Your task to perform on an android device: set the timer Image 0: 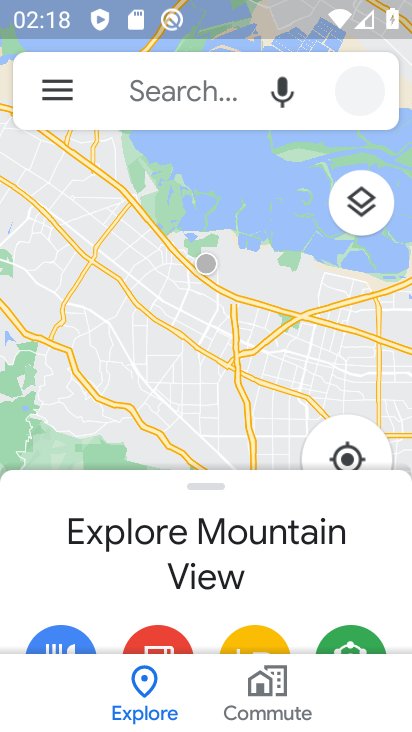
Step 0: press home button
Your task to perform on an android device: set the timer Image 1: 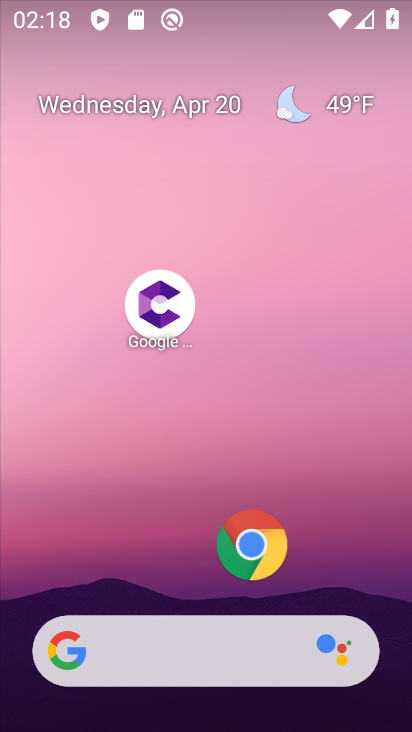
Step 1: drag from (148, 529) to (261, 30)
Your task to perform on an android device: set the timer Image 2: 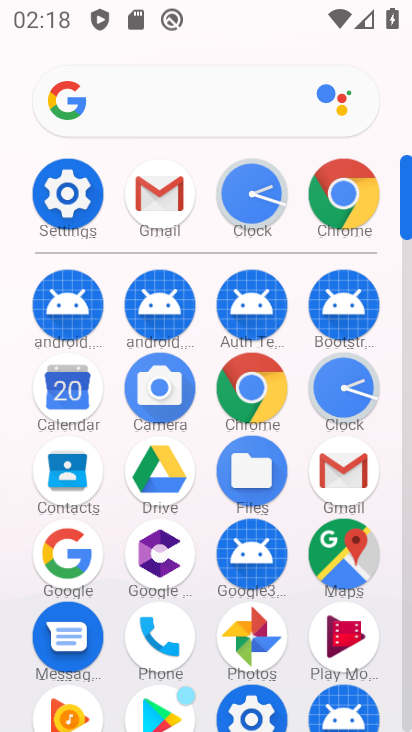
Step 2: click (345, 388)
Your task to perform on an android device: set the timer Image 3: 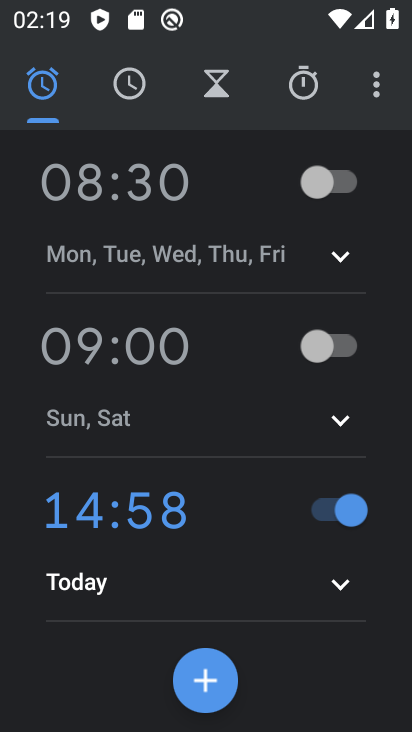
Step 3: click (207, 96)
Your task to perform on an android device: set the timer Image 4: 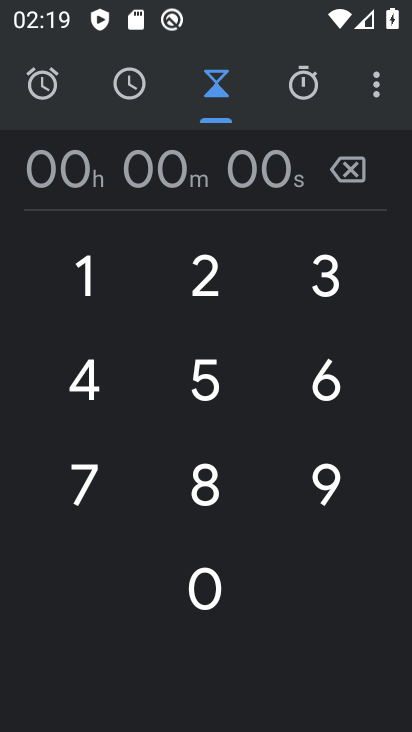
Step 4: type "123"
Your task to perform on an android device: set the timer Image 5: 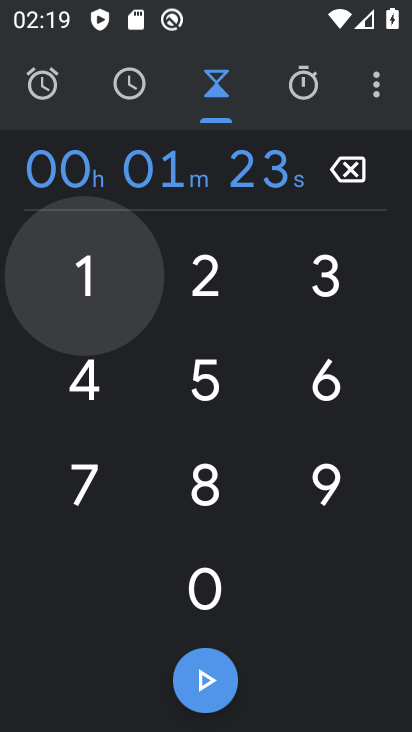
Step 5: click (222, 678)
Your task to perform on an android device: set the timer Image 6: 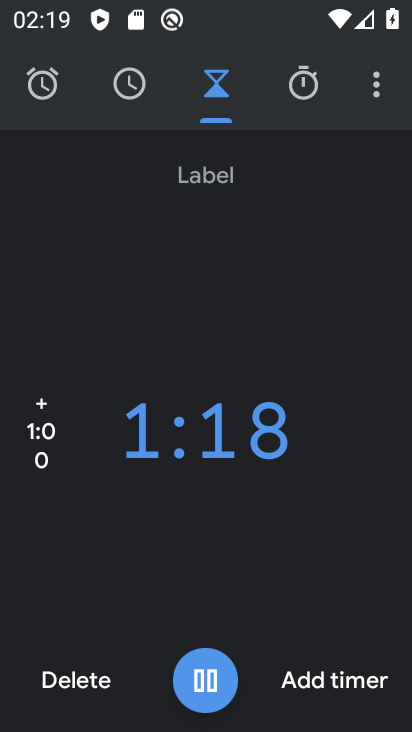
Step 6: click (222, 678)
Your task to perform on an android device: set the timer Image 7: 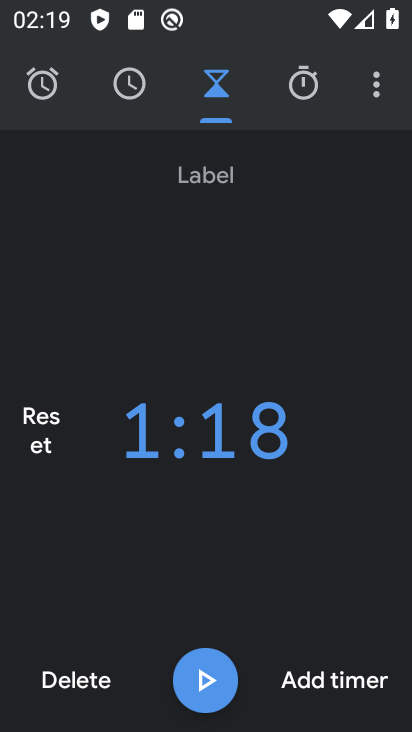
Step 7: task complete